Your task to perform on an android device: check out phone information Image 0: 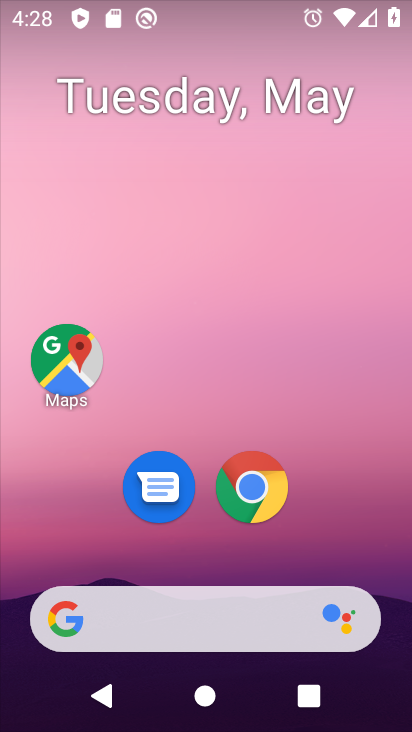
Step 0: drag from (325, 512) to (321, 172)
Your task to perform on an android device: check out phone information Image 1: 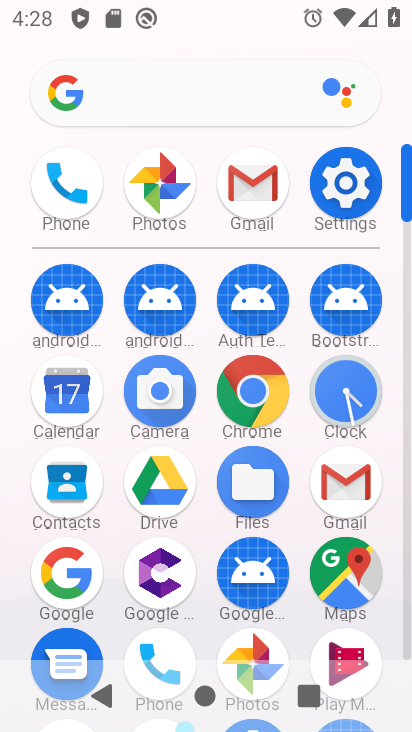
Step 1: drag from (195, 609) to (211, 305)
Your task to perform on an android device: check out phone information Image 2: 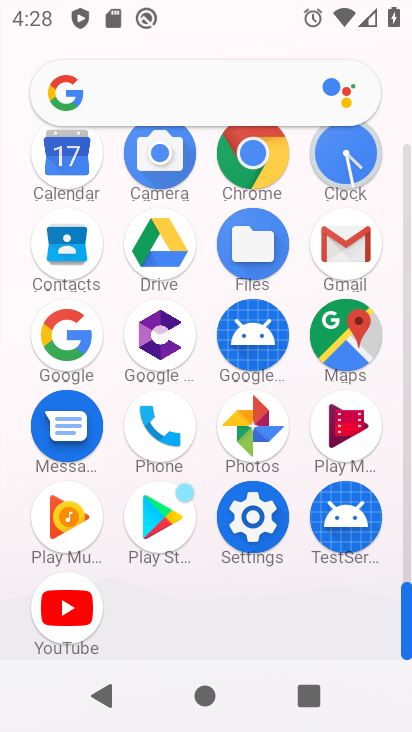
Step 2: click (168, 437)
Your task to perform on an android device: check out phone information Image 3: 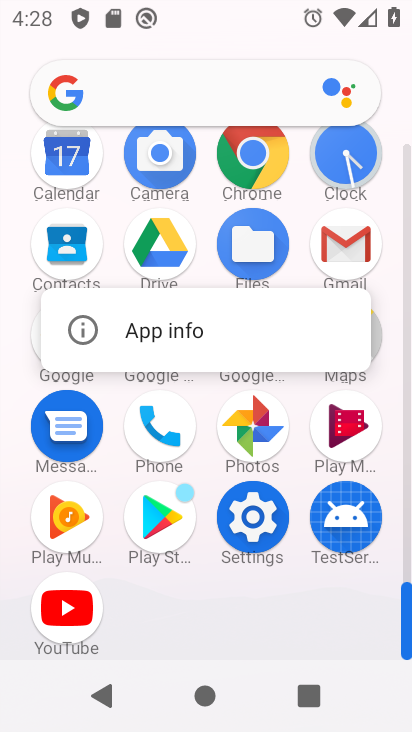
Step 3: click (226, 317)
Your task to perform on an android device: check out phone information Image 4: 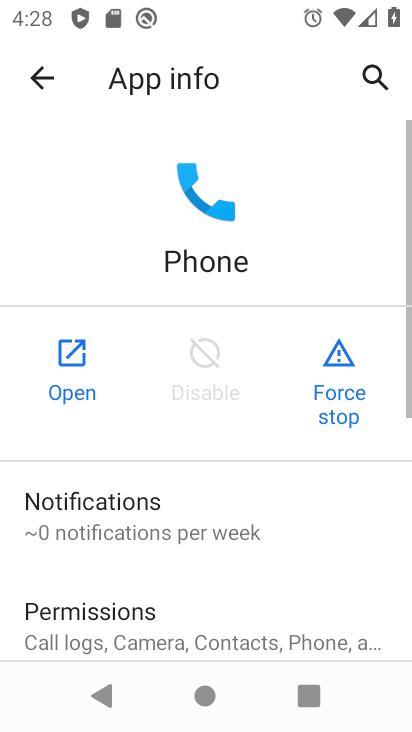
Step 4: task complete